Your task to perform on an android device: Go to display settings Image 0: 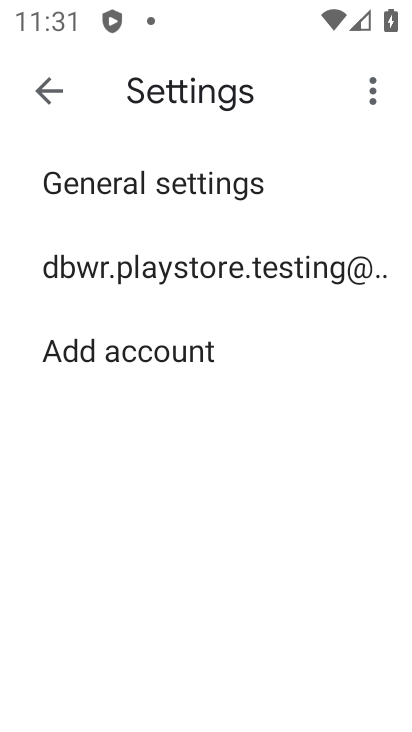
Step 0: press home button
Your task to perform on an android device: Go to display settings Image 1: 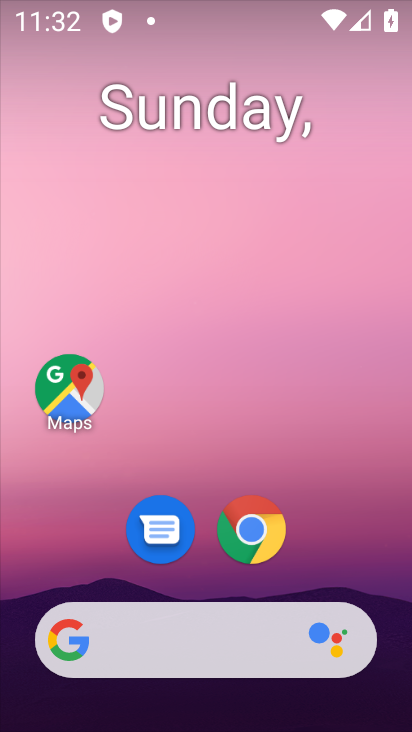
Step 1: drag from (364, 549) to (363, 199)
Your task to perform on an android device: Go to display settings Image 2: 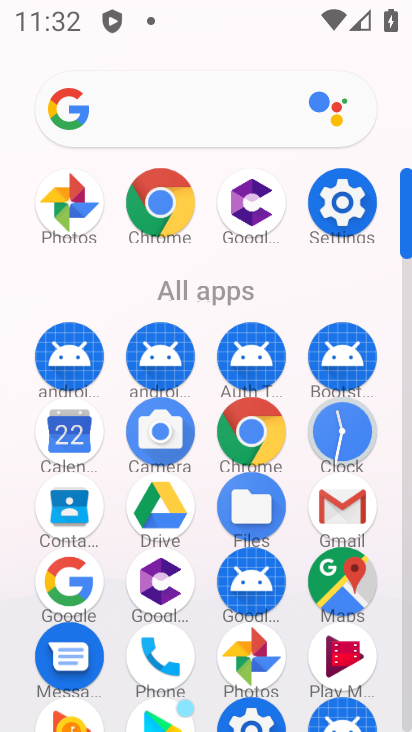
Step 2: click (355, 210)
Your task to perform on an android device: Go to display settings Image 3: 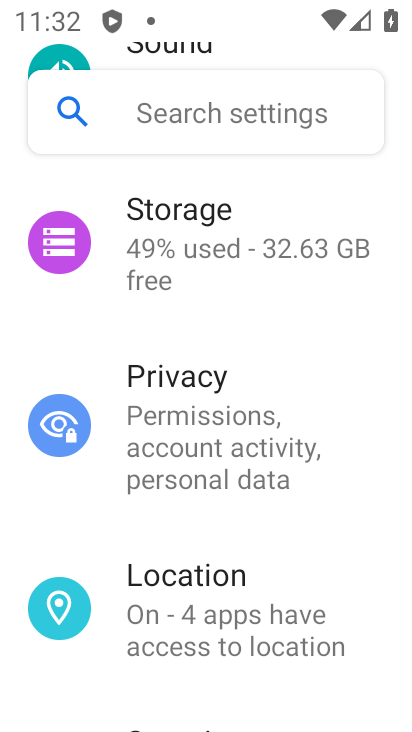
Step 3: drag from (350, 345) to (345, 473)
Your task to perform on an android device: Go to display settings Image 4: 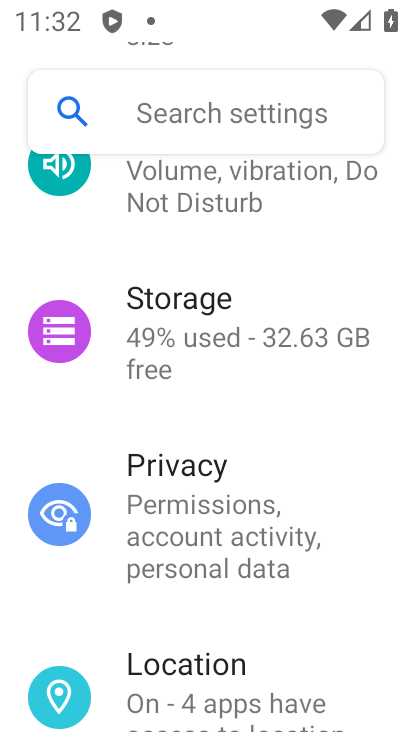
Step 4: drag from (347, 296) to (349, 446)
Your task to perform on an android device: Go to display settings Image 5: 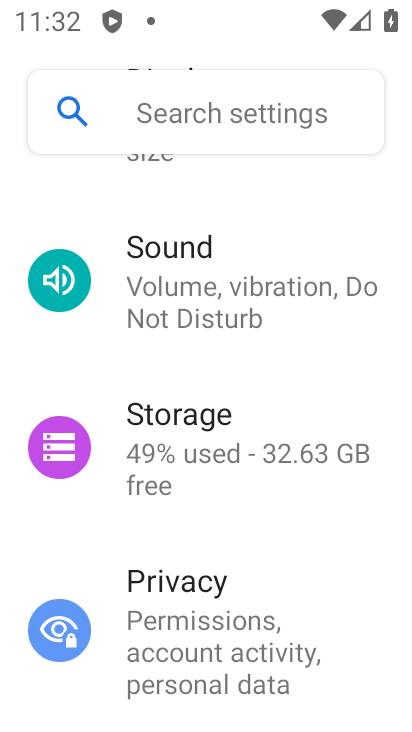
Step 5: drag from (344, 250) to (329, 406)
Your task to perform on an android device: Go to display settings Image 6: 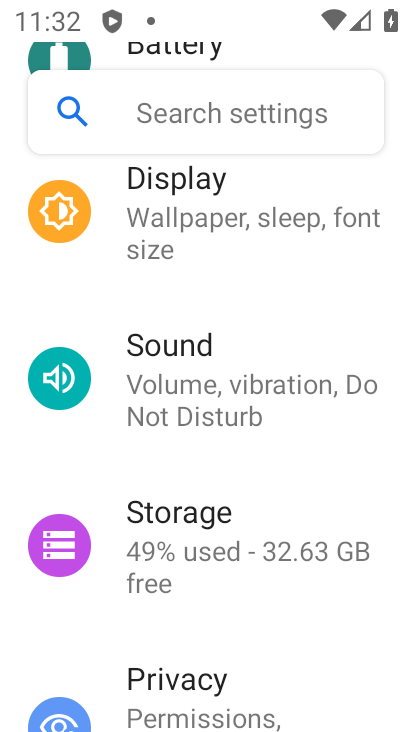
Step 6: drag from (323, 282) to (318, 409)
Your task to perform on an android device: Go to display settings Image 7: 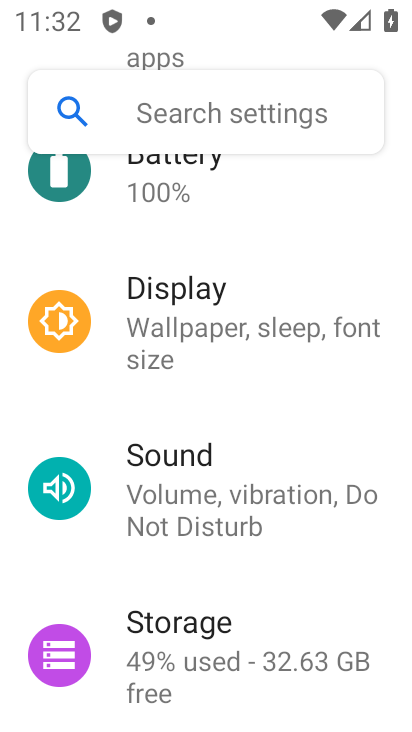
Step 7: drag from (324, 245) to (323, 403)
Your task to perform on an android device: Go to display settings Image 8: 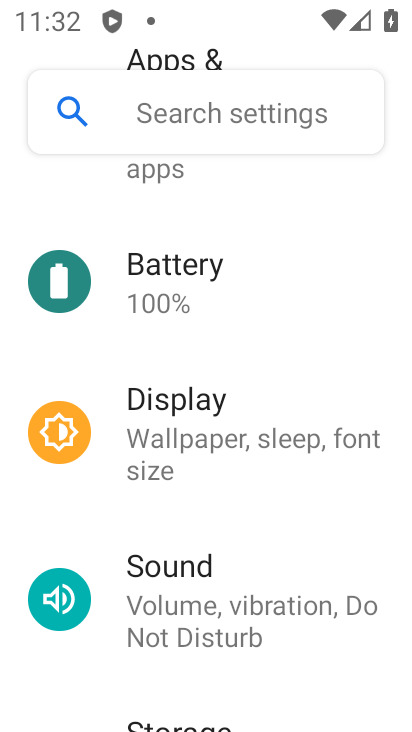
Step 8: drag from (321, 246) to (316, 399)
Your task to perform on an android device: Go to display settings Image 9: 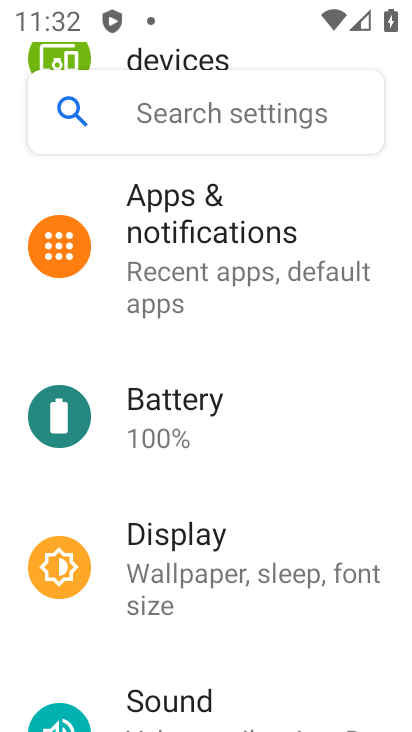
Step 9: drag from (337, 238) to (328, 388)
Your task to perform on an android device: Go to display settings Image 10: 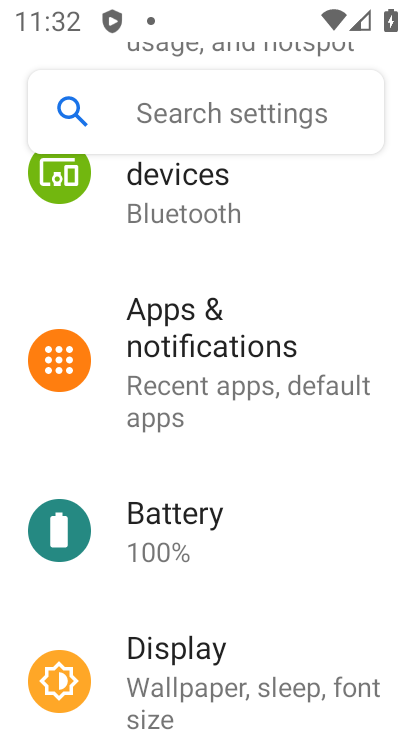
Step 10: drag from (325, 236) to (307, 383)
Your task to perform on an android device: Go to display settings Image 11: 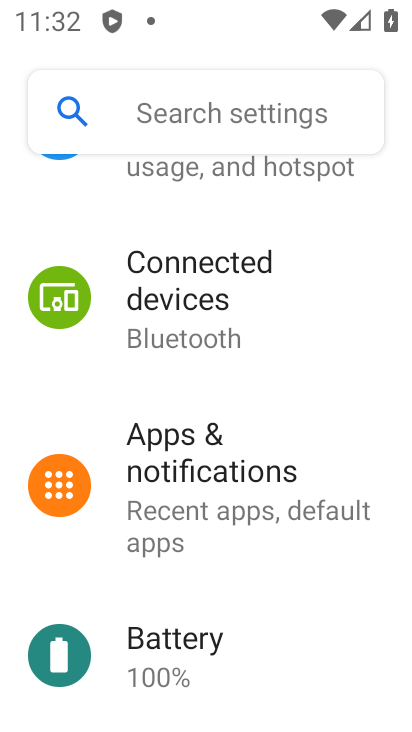
Step 11: drag from (324, 237) to (319, 383)
Your task to perform on an android device: Go to display settings Image 12: 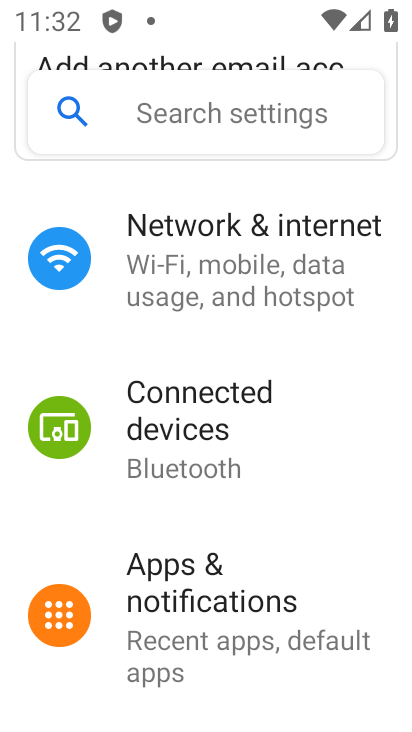
Step 12: drag from (327, 211) to (321, 356)
Your task to perform on an android device: Go to display settings Image 13: 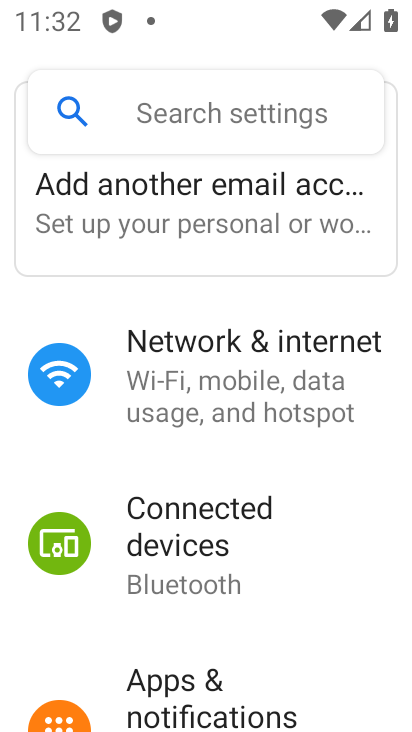
Step 13: drag from (339, 200) to (303, 352)
Your task to perform on an android device: Go to display settings Image 14: 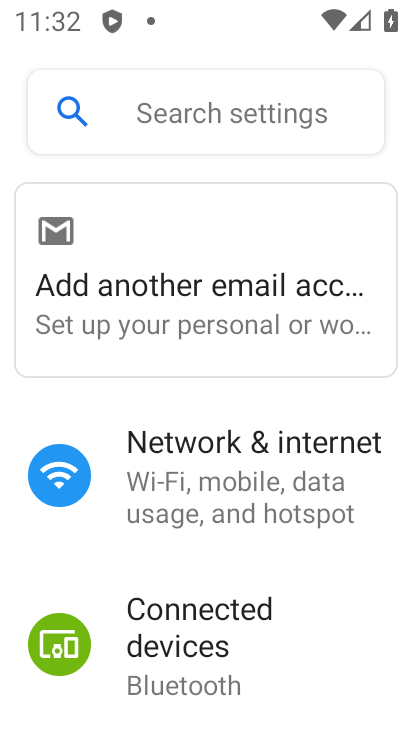
Step 14: drag from (328, 613) to (341, 475)
Your task to perform on an android device: Go to display settings Image 15: 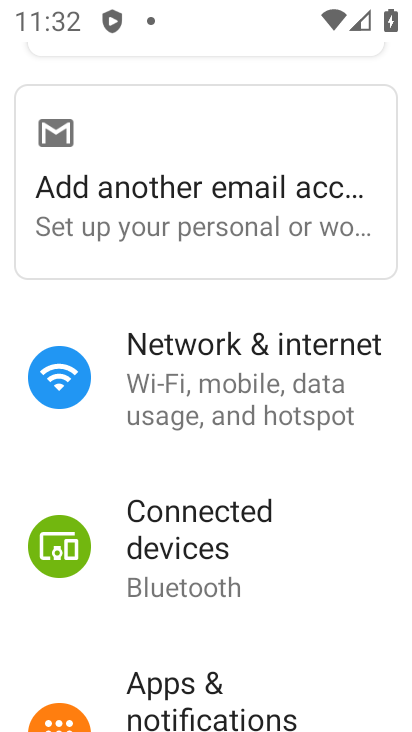
Step 15: drag from (346, 615) to (353, 467)
Your task to perform on an android device: Go to display settings Image 16: 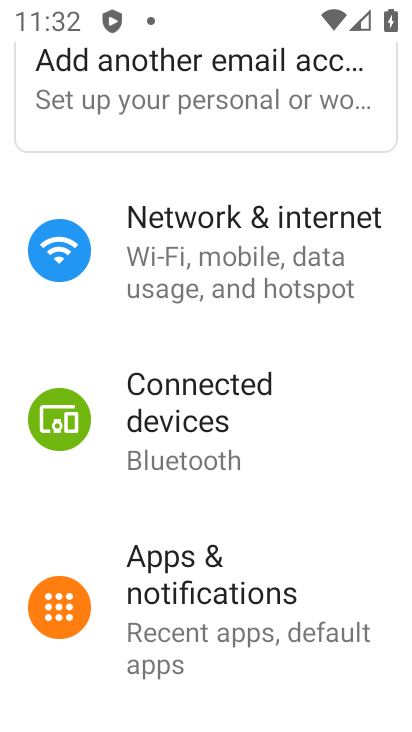
Step 16: drag from (345, 648) to (352, 505)
Your task to perform on an android device: Go to display settings Image 17: 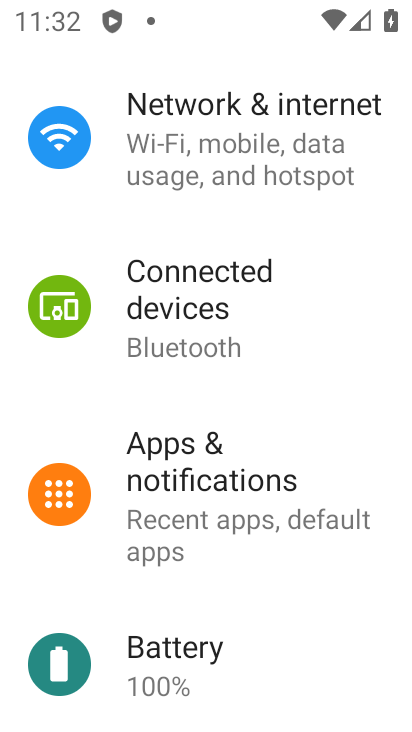
Step 17: drag from (339, 669) to (350, 455)
Your task to perform on an android device: Go to display settings Image 18: 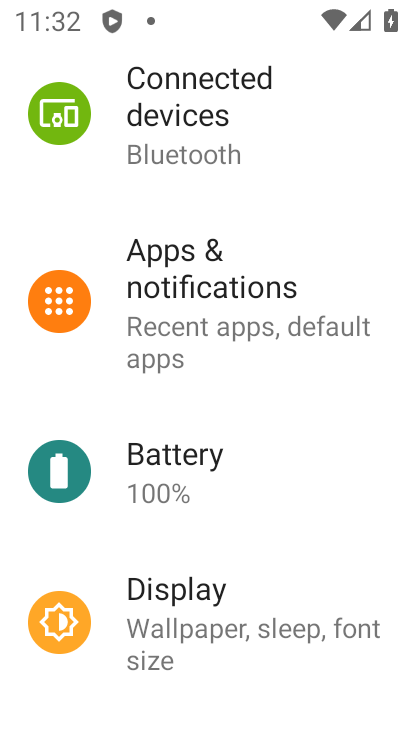
Step 18: click (191, 619)
Your task to perform on an android device: Go to display settings Image 19: 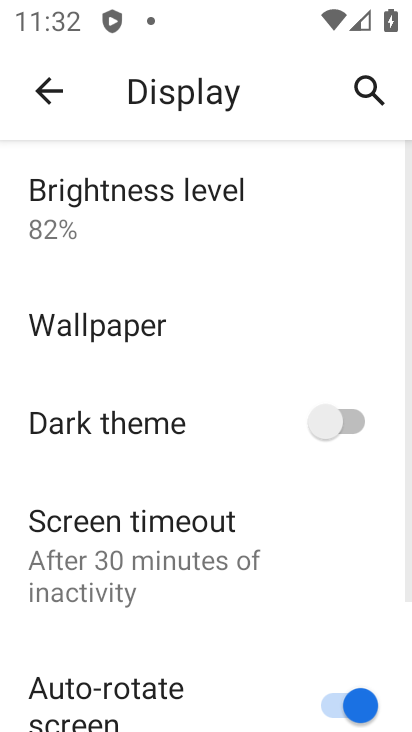
Step 19: task complete